Your task to perform on an android device: change notifications settings Image 0: 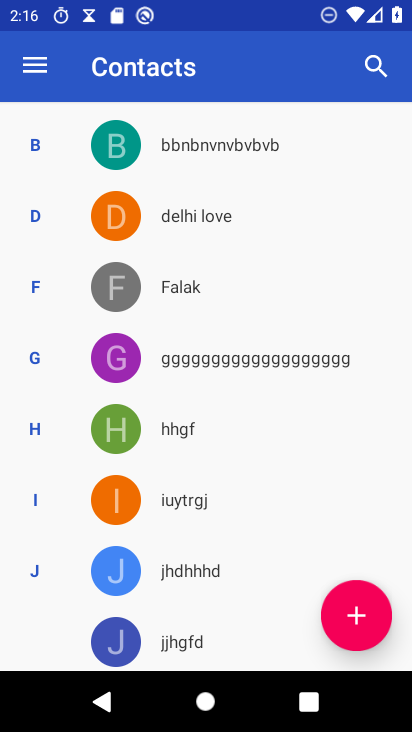
Step 0: press home button
Your task to perform on an android device: change notifications settings Image 1: 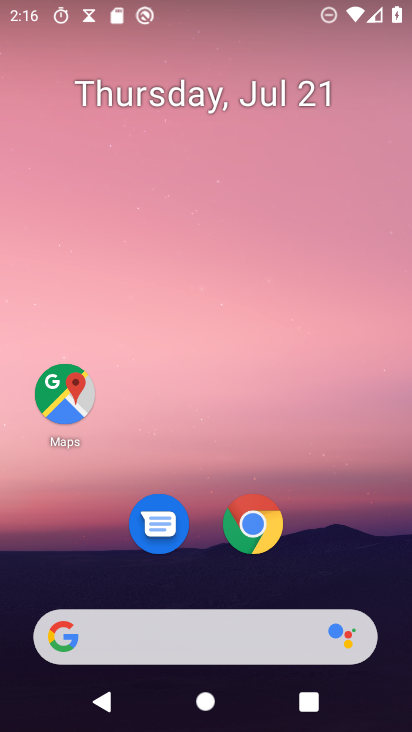
Step 1: drag from (195, 640) to (271, 130)
Your task to perform on an android device: change notifications settings Image 2: 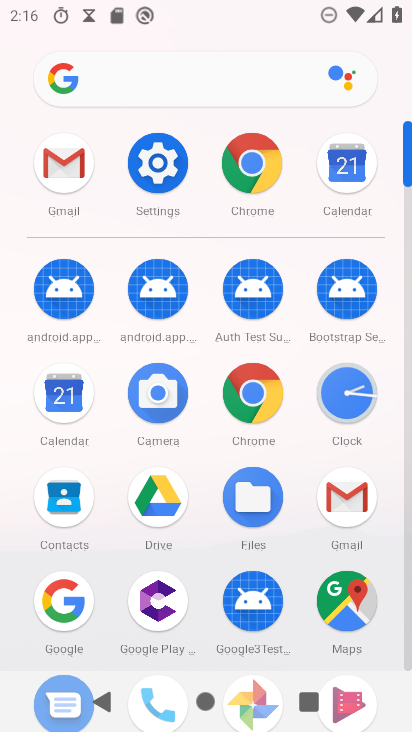
Step 2: click (146, 170)
Your task to perform on an android device: change notifications settings Image 3: 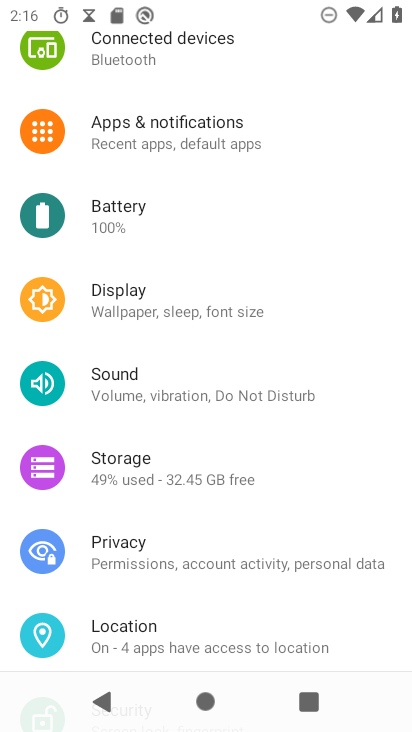
Step 3: click (173, 125)
Your task to perform on an android device: change notifications settings Image 4: 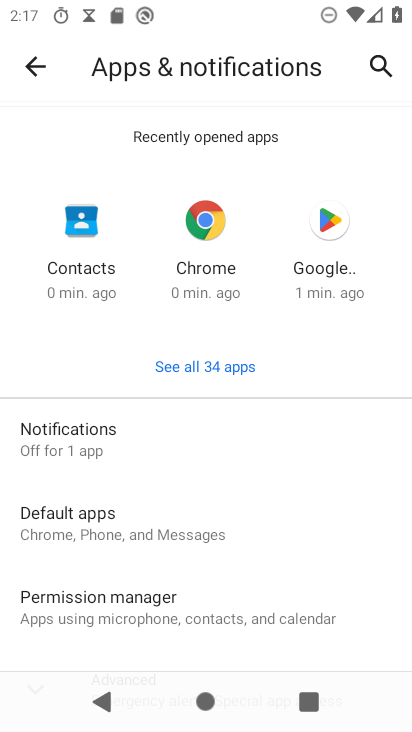
Step 4: click (105, 429)
Your task to perform on an android device: change notifications settings Image 5: 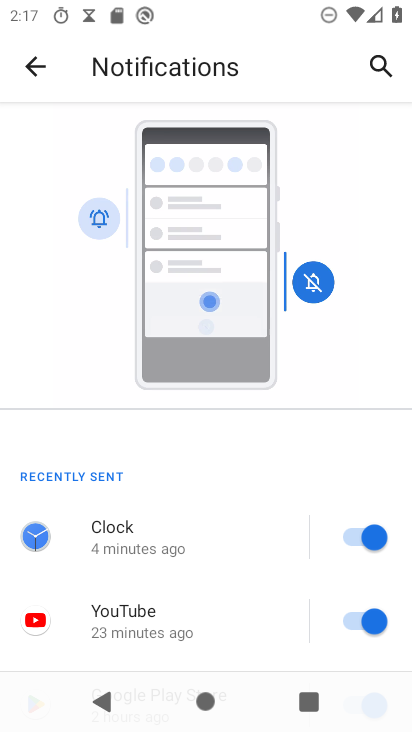
Step 5: drag from (272, 561) to (314, 172)
Your task to perform on an android device: change notifications settings Image 6: 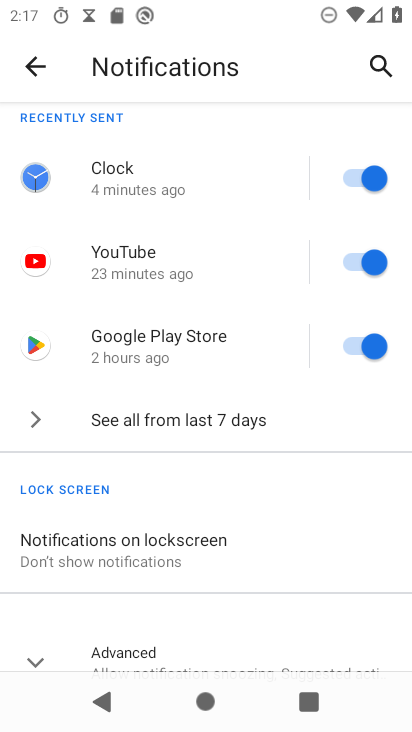
Step 6: click (355, 181)
Your task to perform on an android device: change notifications settings Image 7: 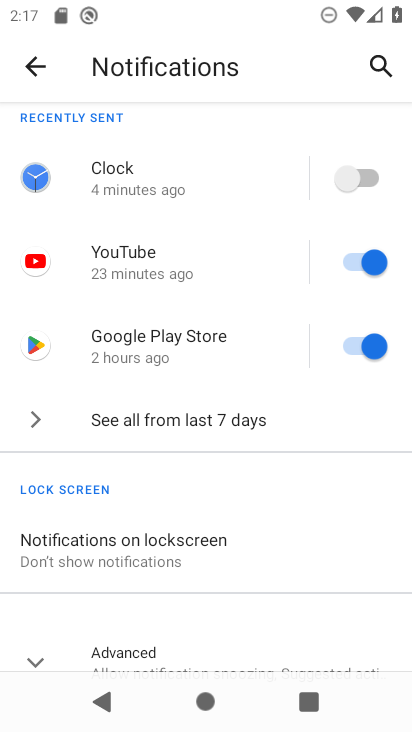
Step 7: task complete